Your task to perform on an android device: Open the Play Movies app and select the watchlist tab. Image 0: 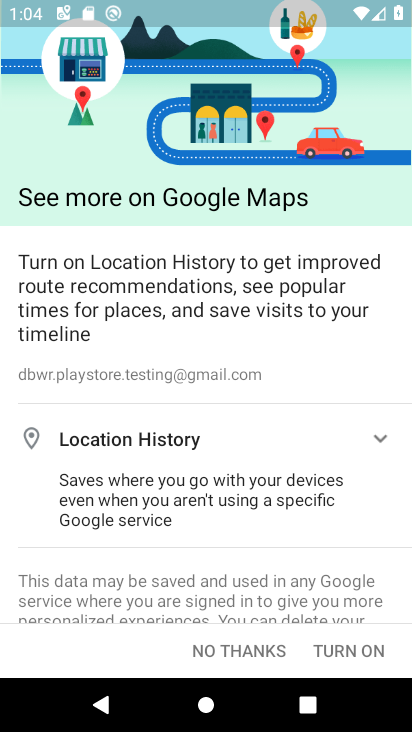
Step 0: press home button
Your task to perform on an android device: Open the Play Movies app and select the watchlist tab. Image 1: 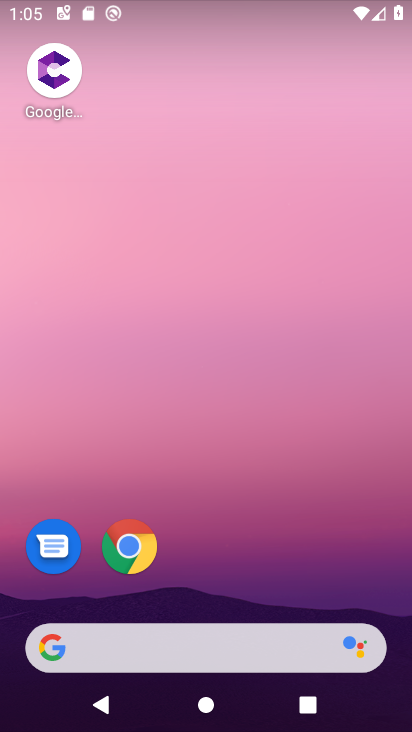
Step 1: drag from (236, 630) to (226, 186)
Your task to perform on an android device: Open the Play Movies app and select the watchlist tab. Image 2: 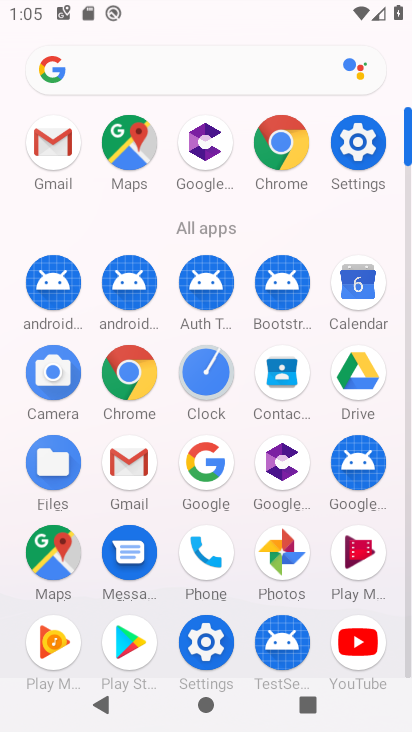
Step 2: click (362, 573)
Your task to perform on an android device: Open the Play Movies app and select the watchlist tab. Image 3: 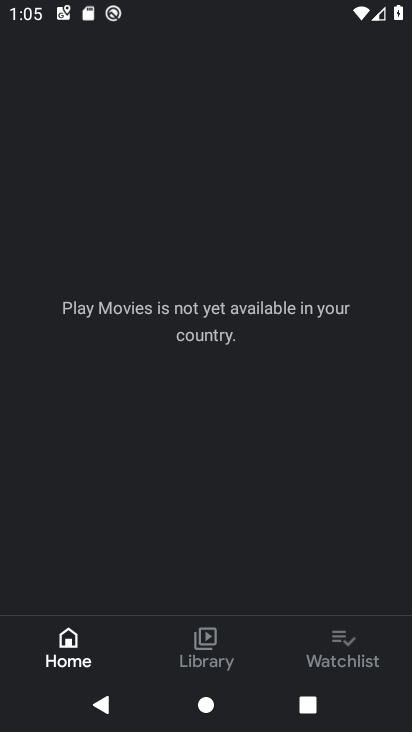
Step 3: click (346, 638)
Your task to perform on an android device: Open the Play Movies app and select the watchlist tab. Image 4: 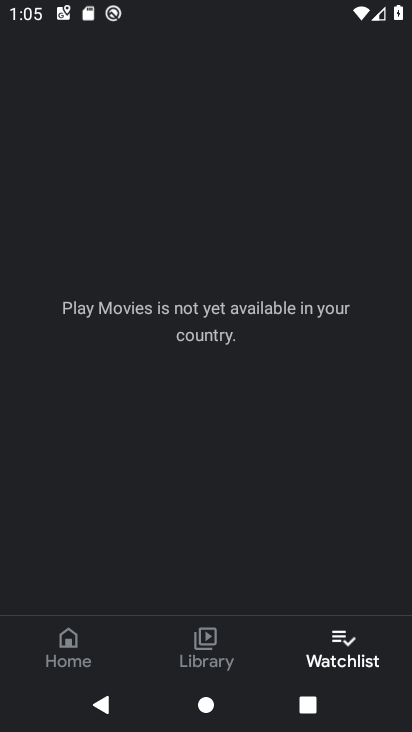
Step 4: task complete